Your task to perform on an android device: Open Google Chrome and open the bookmarks view Image 0: 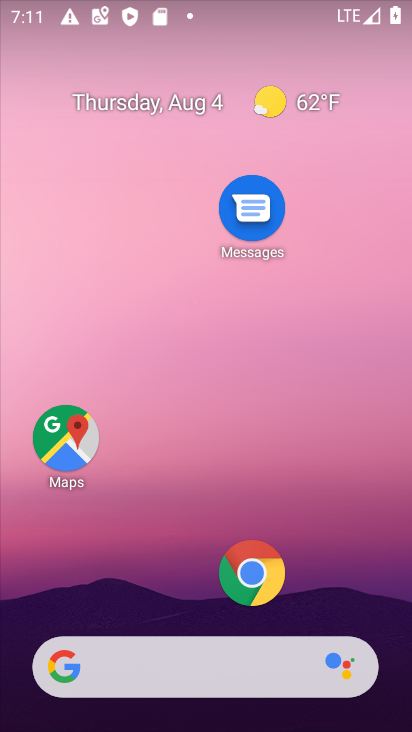
Step 0: press home button
Your task to perform on an android device: Open Google Chrome and open the bookmarks view Image 1: 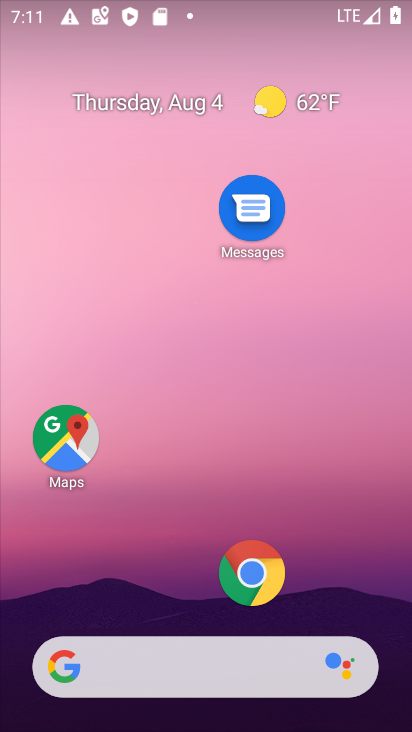
Step 1: click (206, 12)
Your task to perform on an android device: Open Google Chrome and open the bookmarks view Image 2: 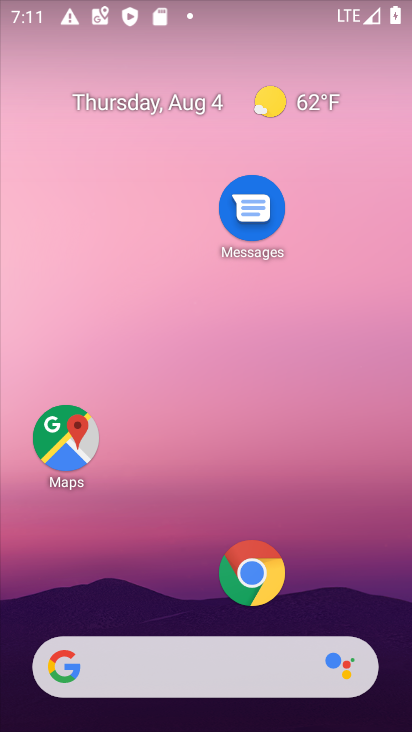
Step 2: drag from (185, 581) to (176, 137)
Your task to perform on an android device: Open Google Chrome and open the bookmarks view Image 3: 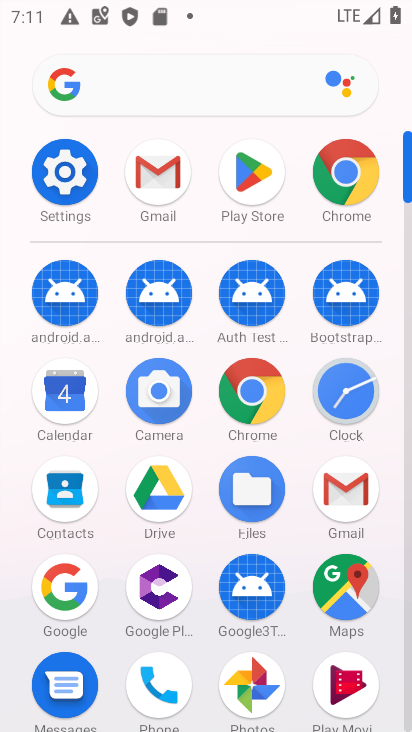
Step 3: click (354, 176)
Your task to perform on an android device: Open Google Chrome and open the bookmarks view Image 4: 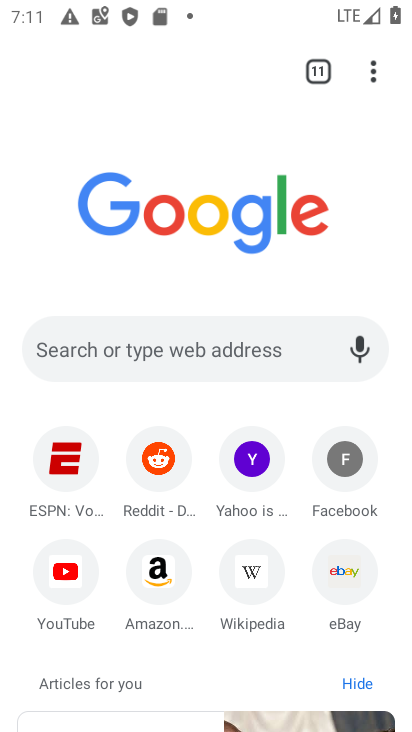
Step 4: task complete